Your task to perform on an android device: turn off notifications in google photos Image 0: 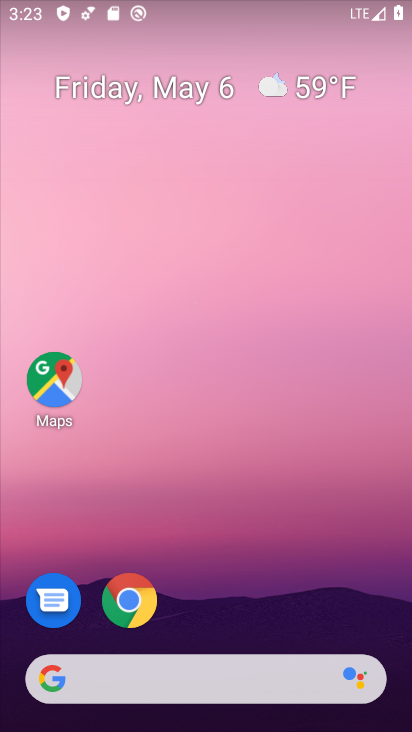
Step 0: drag from (280, 632) to (298, 200)
Your task to perform on an android device: turn off notifications in google photos Image 1: 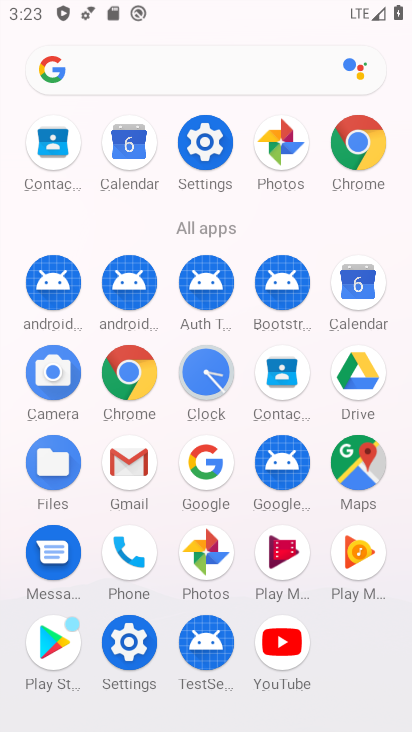
Step 1: click (207, 574)
Your task to perform on an android device: turn off notifications in google photos Image 2: 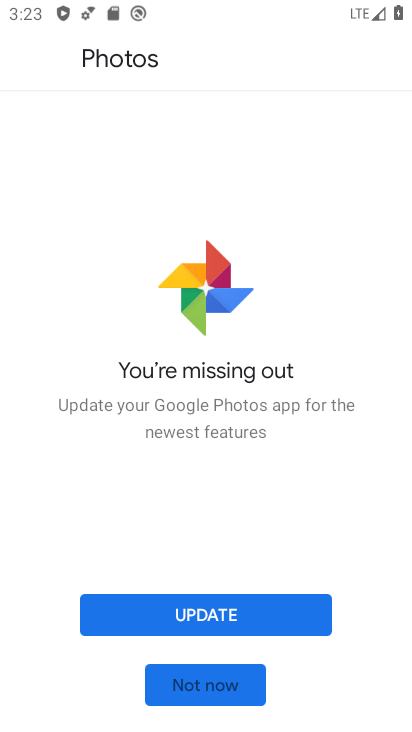
Step 2: click (216, 681)
Your task to perform on an android device: turn off notifications in google photos Image 3: 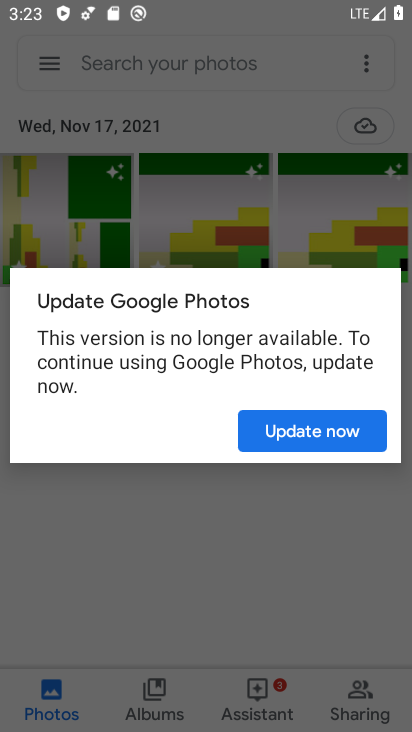
Step 3: click (287, 434)
Your task to perform on an android device: turn off notifications in google photos Image 4: 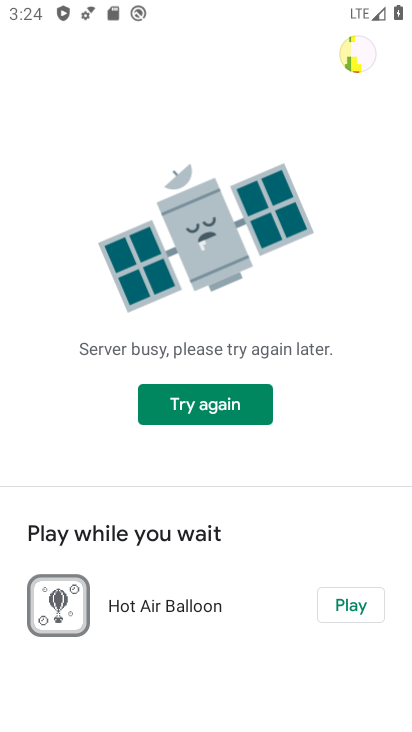
Step 4: click (214, 406)
Your task to perform on an android device: turn off notifications in google photos Image 5: 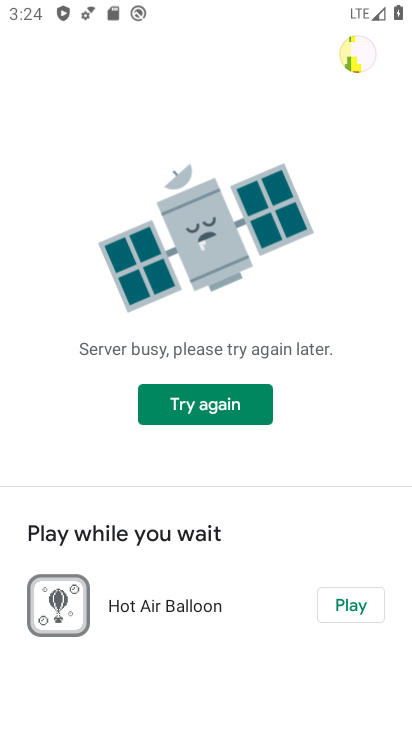
Step 5: press back button
Your task to perform on an android device: turn off notifications in google photos Image 6: 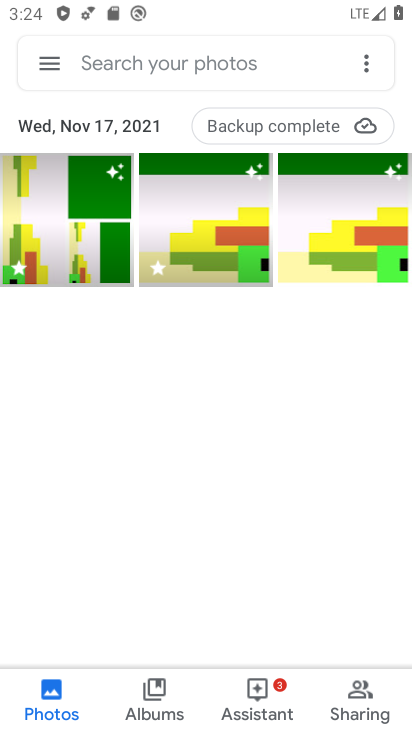
Step 6: click (43, 67)
Your task to perform on an android device: turn off notifications in google photos Image 7: 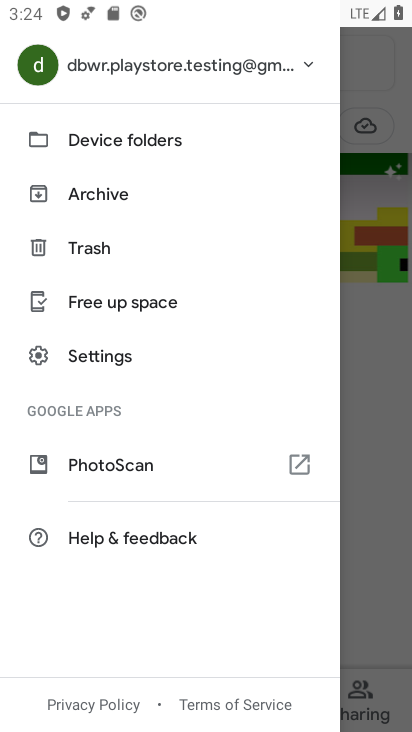
Step 7: click (122, 363)
Your task to perform on an android device: turn off notifications in google photos Image 8: 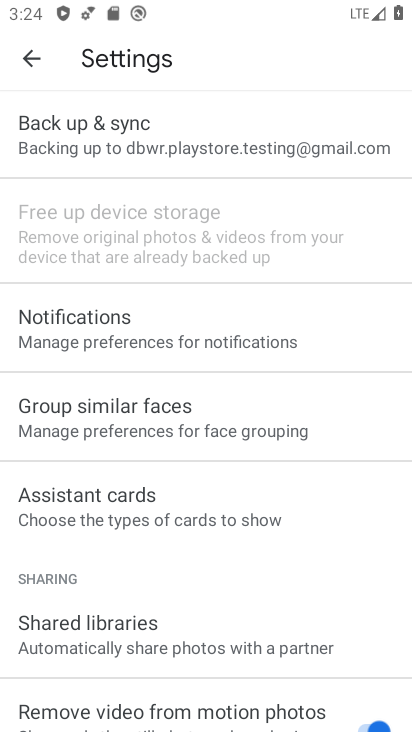
Step 8: click (179, 338)
Your task to perform on an android device: turn off notifications in google photos Image 9: 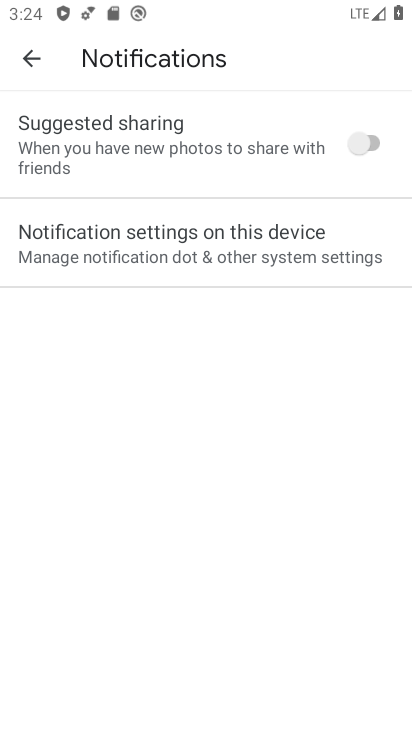
Step 9: click (235, 245)
Your task to perform on an android device: turn off notifications in google photos Image 10: 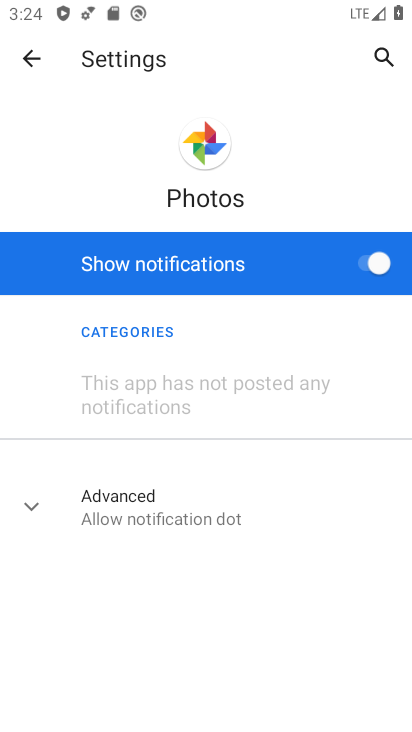
Step 10: click (299, 273)
Your task to perform on an android device: turn off notifications in google photos Image 11: 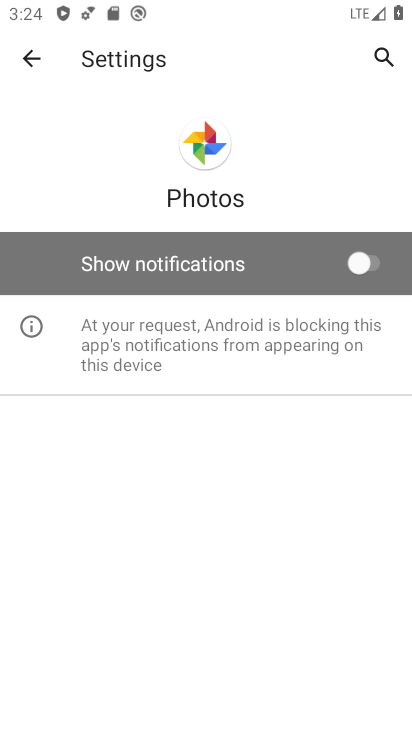
Step 11: task complete